Your task to perform on an android device: Go to Google maps Image 0: 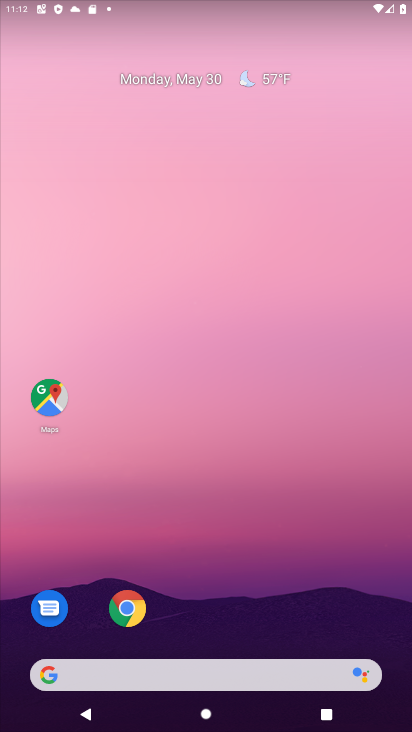
Step 0: drag from (326, 484) to (279, 36)
Your task to perform on an android device: Go to Google maps Image 1: 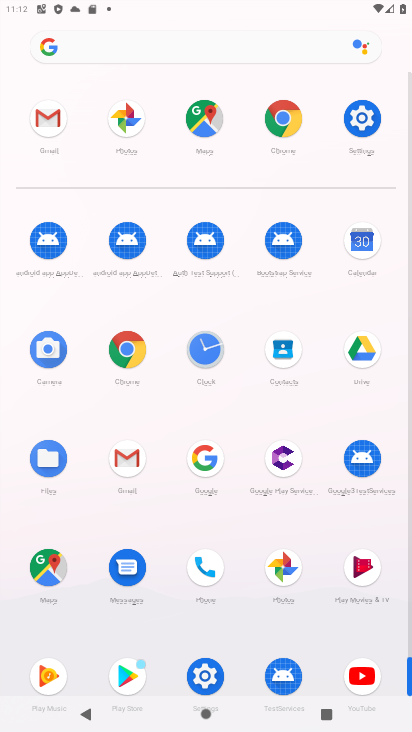
Step 1: drag from (10, 523) to (5, 267)
Your task to perform on an android device: Go to Google maps Image 2: 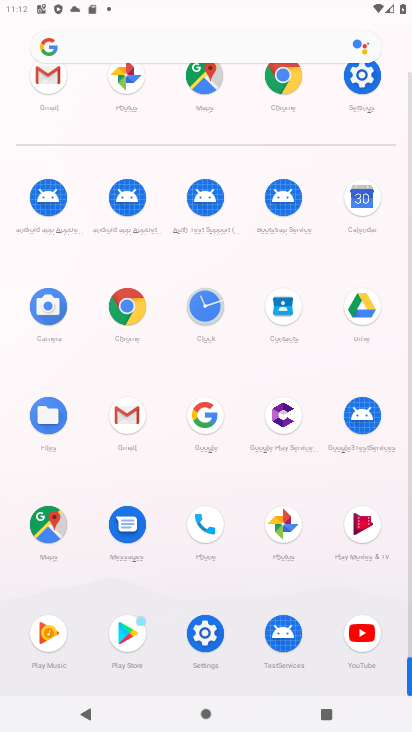
Step 2: click (49, 523)
Your task to perform on an android device: Go to Google maps Image 3: 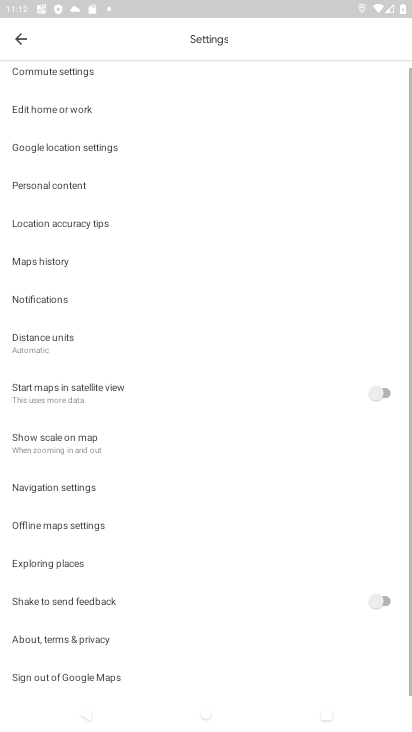
Step 3: click (19, 31)
Your task to perform on an android device: Go to Google maps Image 4: 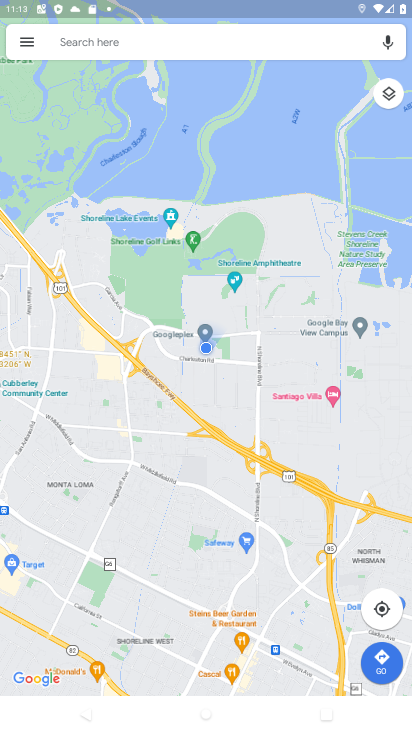
Step 4: task complete